Your task to perform on an android device: Open calendar and show me the fourth week of next month Image 0: 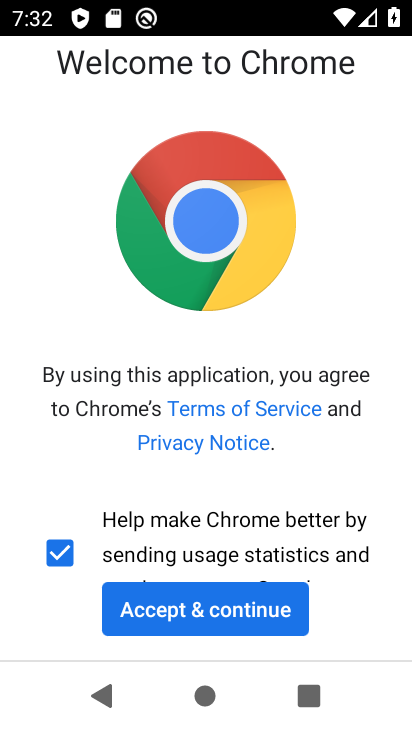
Step 0: press home button
Your task to perform on an android device: Open calendar and show me the fourth week of next month Image 1: 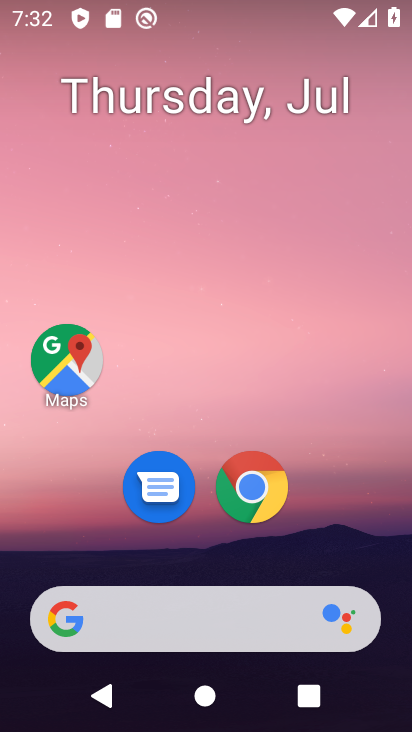
Step 1: drag from (303, 596) to (326, 267)
Your task to perform on an android device: Open calendar and show me the fourth week of next month Image 2: 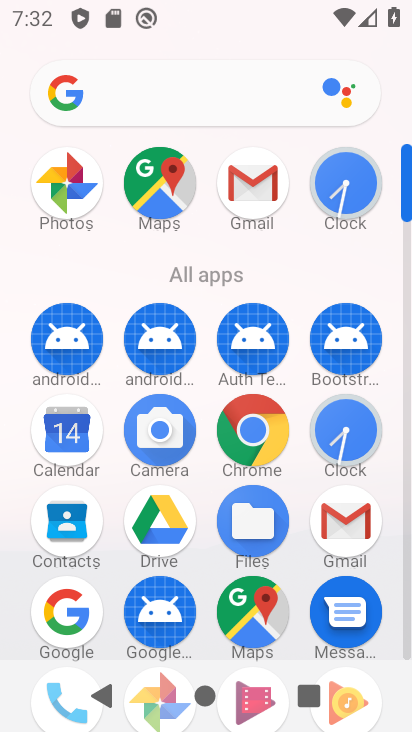
Step 2: drag from (326, 427) to (353, 253)
Your task to perform on an android device: Open calendar and show me the fourth week of next month Image 3: 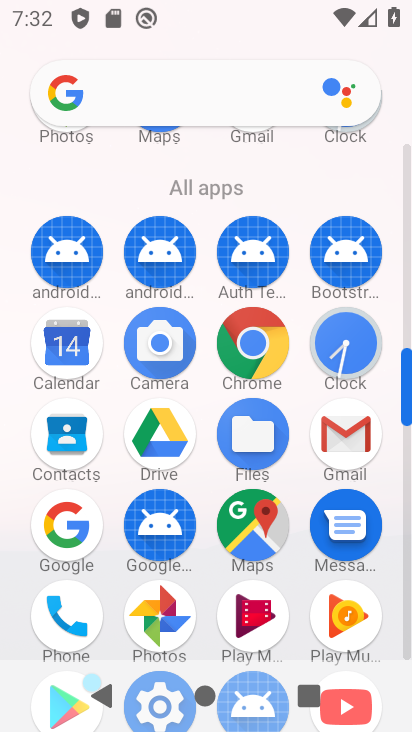
Step 3: drag from (310, 461) to (358, 206)
Your task to perform on an android device: Open calendar and show me the fourth week of next month Image 4: 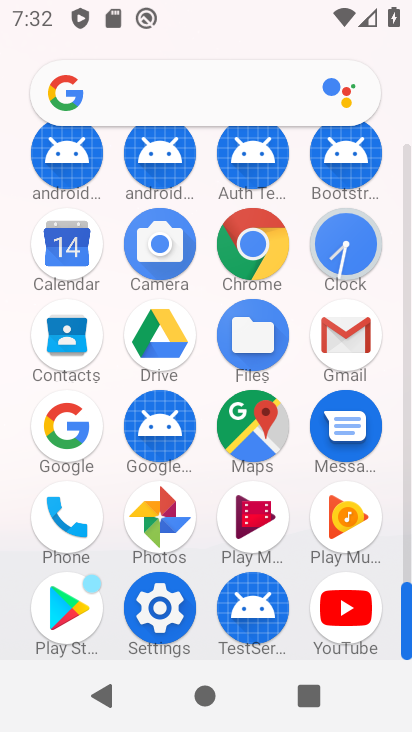
Step 4: click (73, 266)
Your task to perform on an android device: Open calendar and show me the fourth week of next month Image 5: 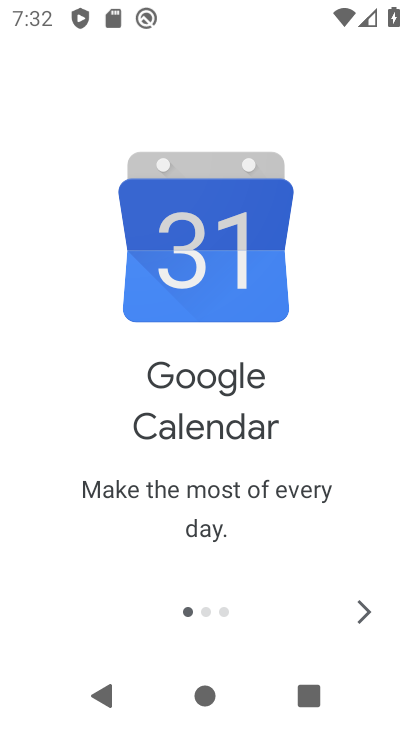
Step 5: click (366, 618)
Your task to perform on an android device: Open calendar and show me the fourth week of next month Image 6: 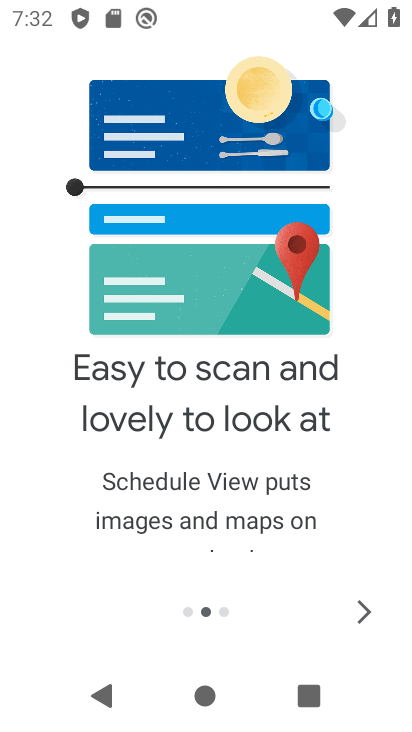
Step 6: click (366, 618)
Your task to perform on an android device: Open calendar and show me the fourth week of next month Image 7: 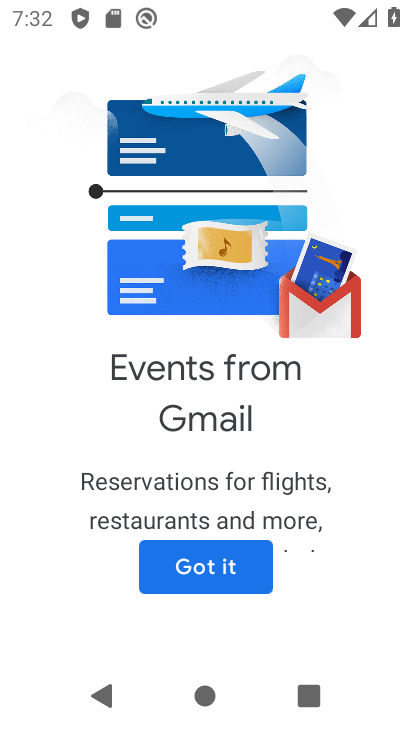
Step 7: click (250, 573)
Your task to perform on an android device: Open calendar and show me the fourth week of next month Image 8: 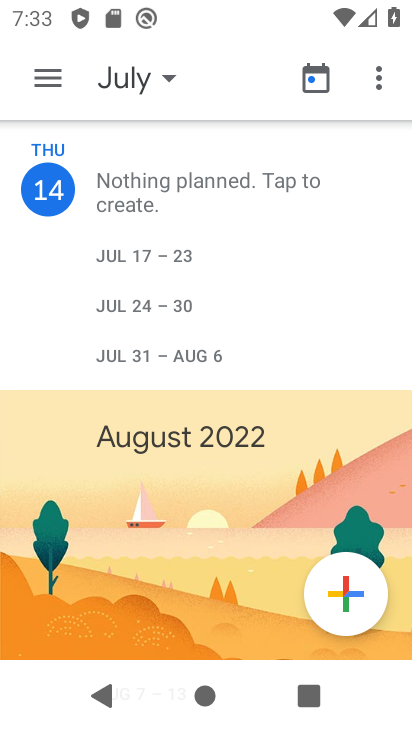
Step 8: click (157, 82)
Your task to perform on an android device: Open calendar and show me the fourth week of next month Image 9: 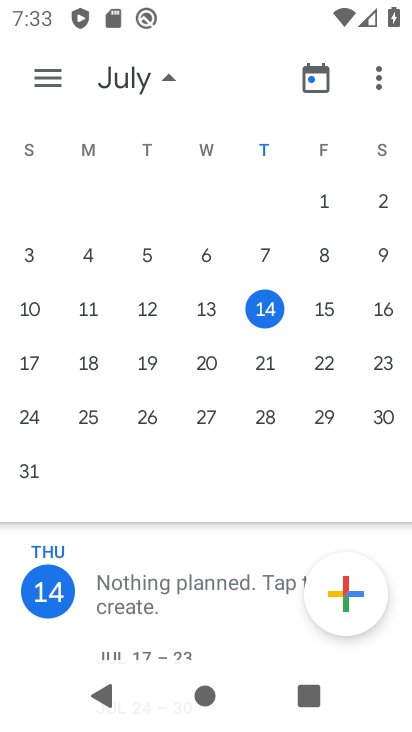
Step 9: drag from (330, 310) to (108, 317)
Your task to perform on an android device: Open calendar and show me the fourth week of next month Image 10: 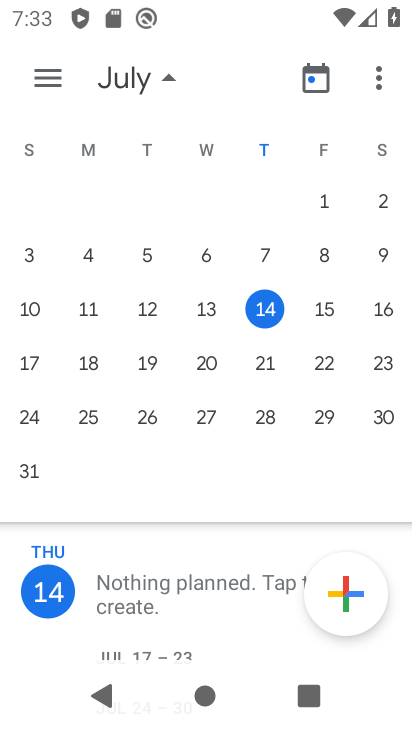
Step 10: drag from (369, 345) to (38, 318)
Your task to perform on an android device: Open calendar and show me the fourth week of next month Image 11: 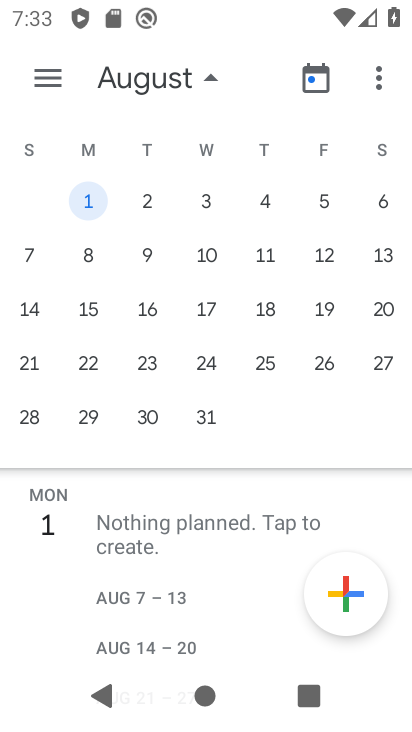
Step 11: click (98, 366)
Your task to perform on an android device: Open calendar and show me the fourth week of next month Image 12: 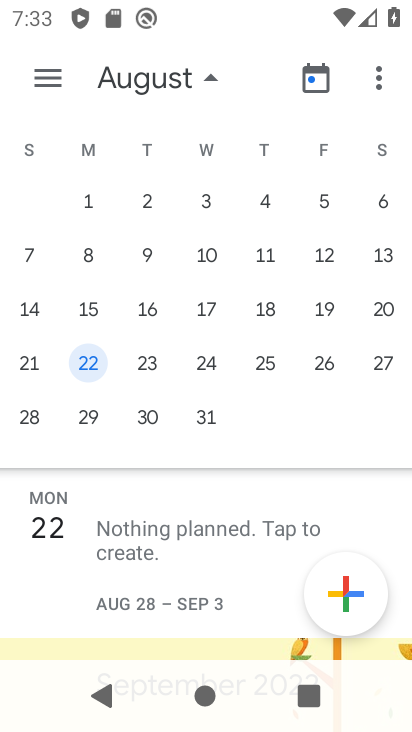
Step 12: task complete